Your task to perform on an android device: What is the recent news? Image 0: 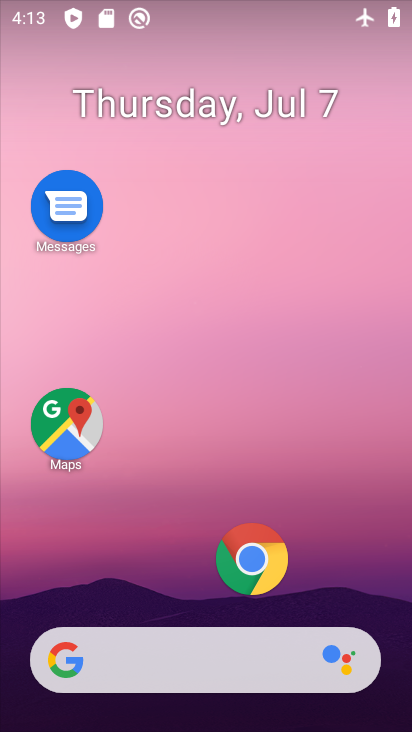
Step 0: drag from (174, 616) to (150, 16)
Your task to perform on an android device: What is the recent news? Image 1: 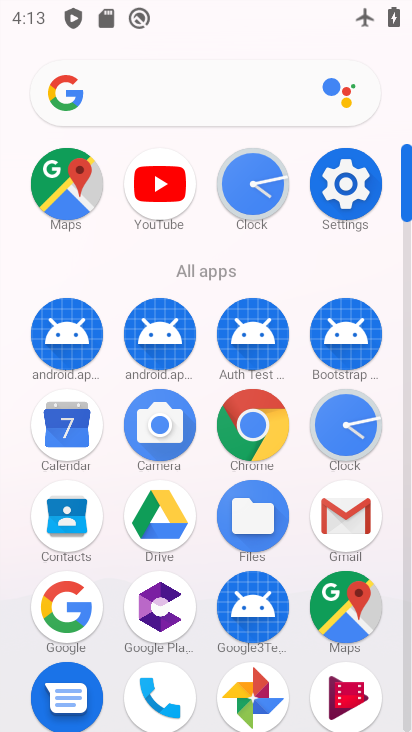
Step 1: task complete